Your task to perform on an android device: What is the recent news? Image 0: 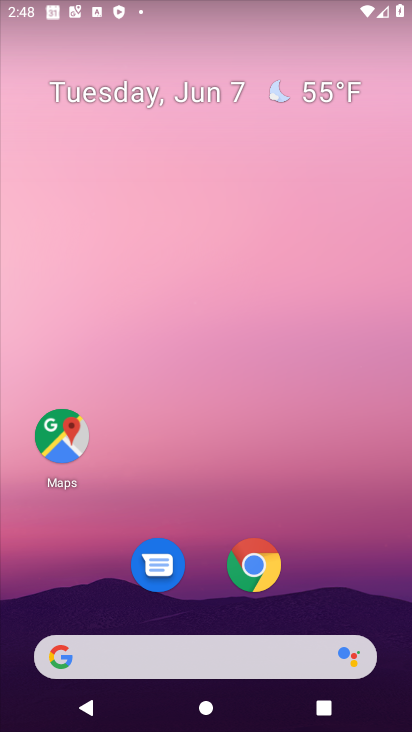
Step 0: drag from (317, 656) to (360, 39)
Your task to perform on an android device: What is the recent news? Image 1: 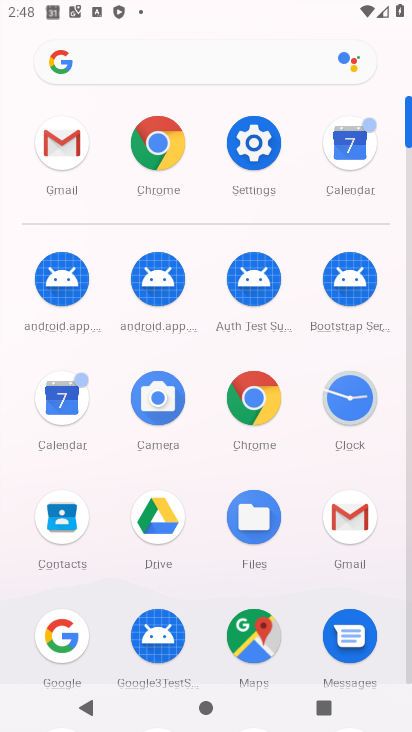
Step 1: click (264, 406)
Your task to perform on an android device: What is the recent news? Image 2: 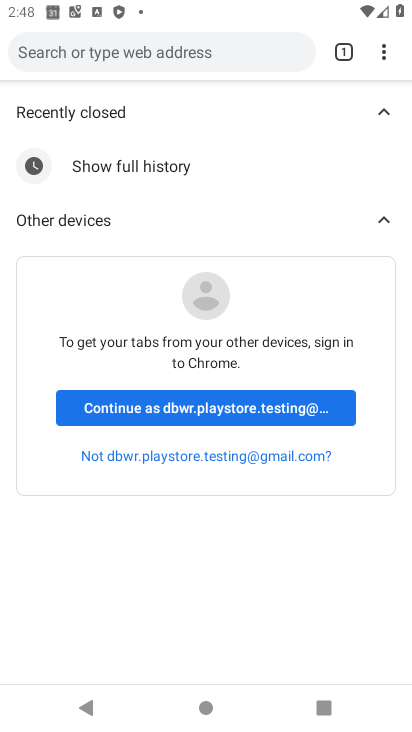
Step 2: click (191, 54)
Your task to perform on an android device: What is the recent news? Image 3: 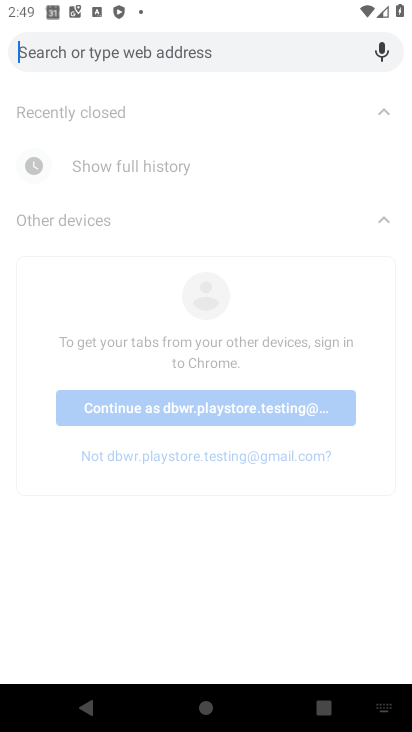
Step 3: type "recent news"
Your task to perform on an android device: What is the recent news? Image 4: 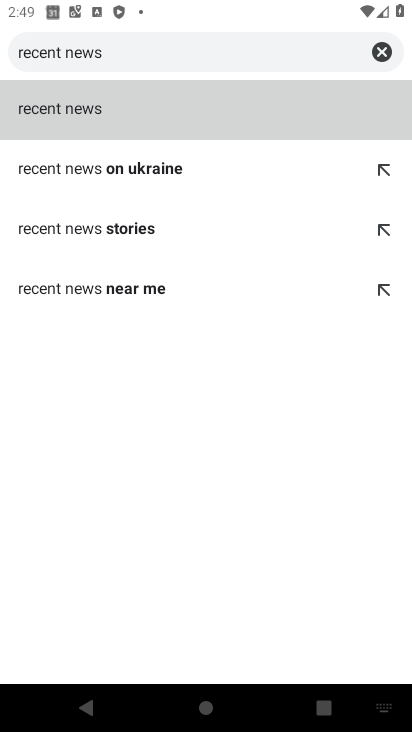
Step 4: click (338, 125)
Your task to perform on an android device: What is the recent news? Image 5: 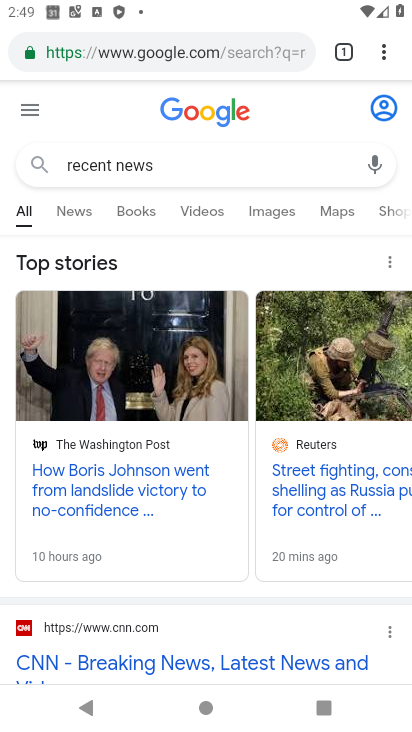
Step 5: task complete